Your task to perform on an android device: read, delete, or share a saved page in the chrome app Image 0: 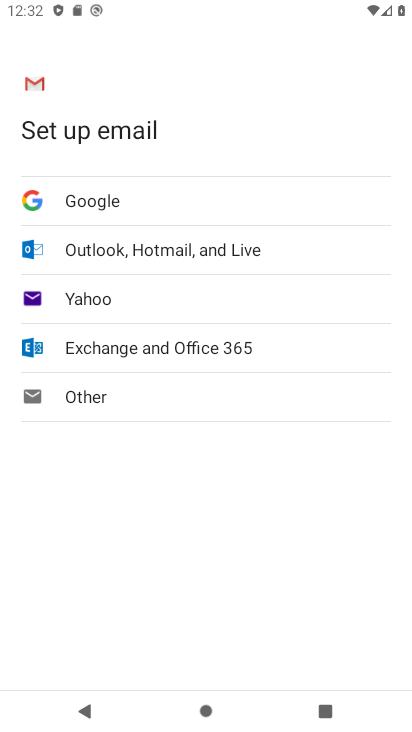
Step 0: press home button
Your task to perform on an android device: read, delete, or share a saved page in the chrome app Image 1: 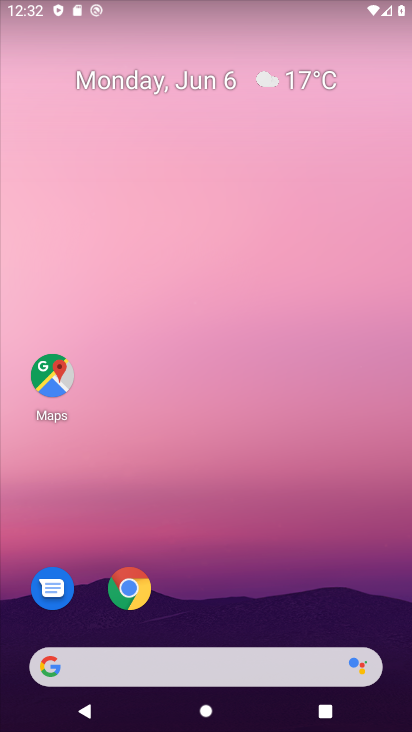
Step 1: click (130, 589)
Your task to perform on an android device: read, delete, or share a saved page in the chrome app Image 2: 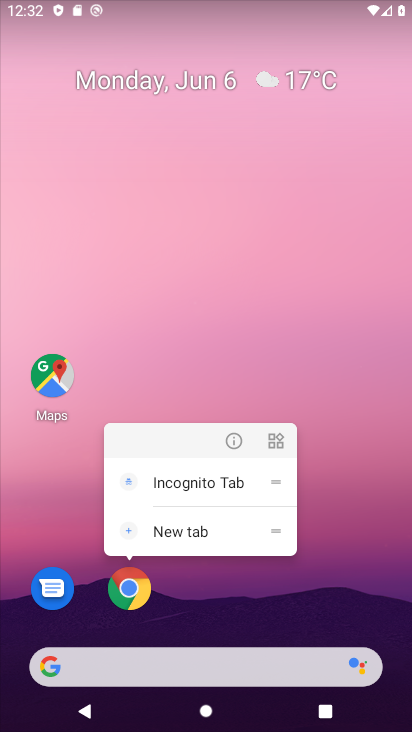
Step 2: click (130, 589)
Your task to perform on an android device: read, delete, or share a saved page in the chrome app Image 3: 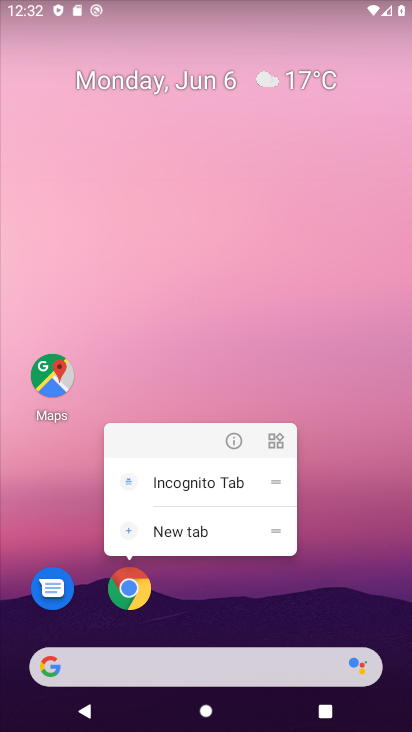
Step 3: click (245, 593)
Your task to perform on an android device: read, delete, or share a saved page in the chrome app Image 4: 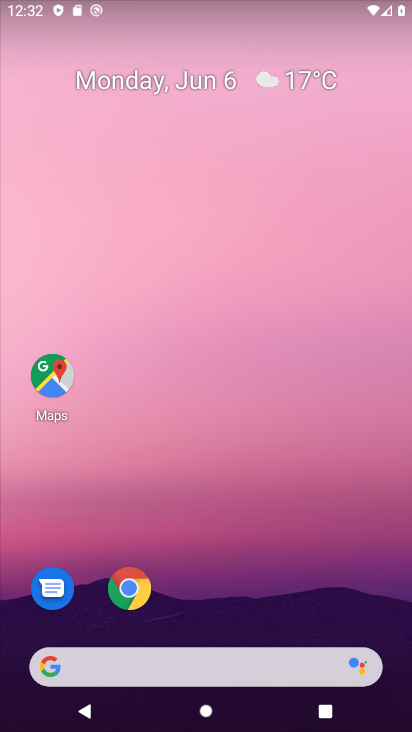
Step 4: drag from (372, 602) to (377, 144)
Your task to perform on an android device: read, delete, or share a saved page in the chrome app Image 5: 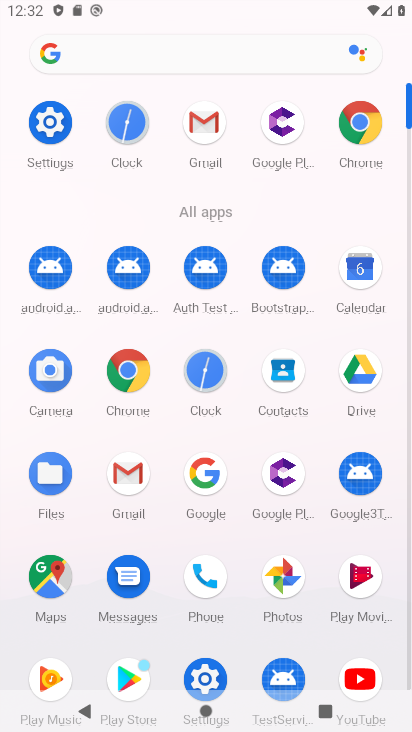
Step 5: click (126, 370)
Your task to perform on an android device: read, delete, or share a saved page in the chrome app Image 6: 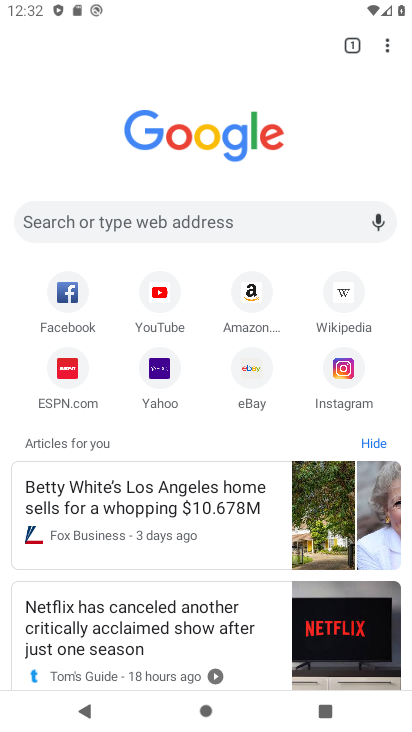
Step 6: task complete